Your task to perform on an android device: Open wifi settings Image 0: 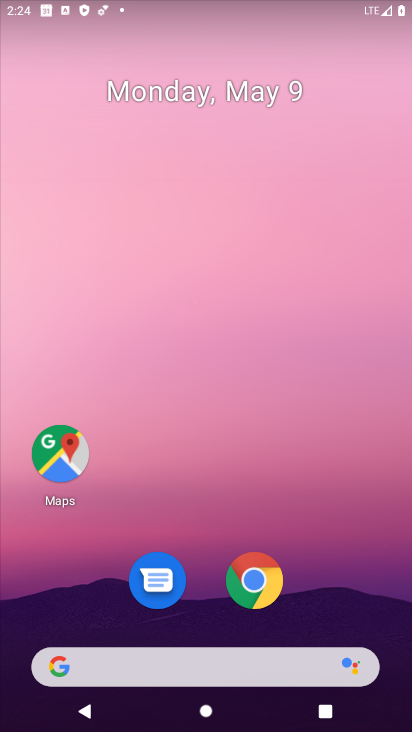
Step 0: drag from (313, 566) to (265, 122)
Your task to perform on an android device: Open wifi settings Image 1: 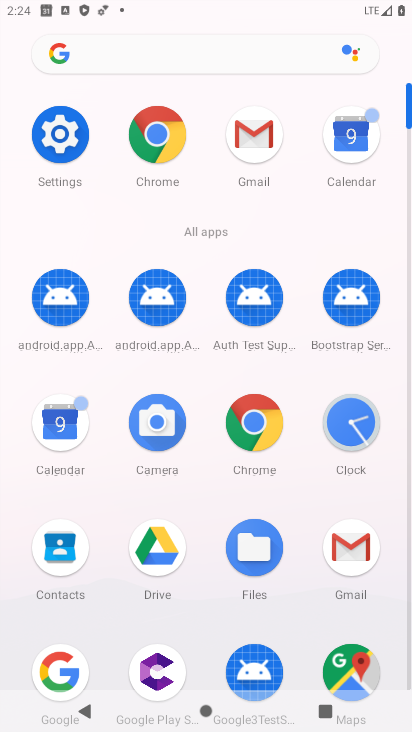
Step 1: click (65, 143)
Your task to perform on an android device: Open wifi settings Image 2: 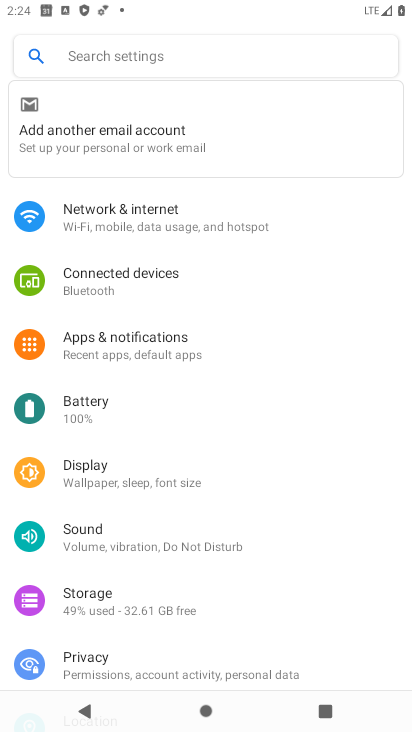
Step 2: click (126, 208)
Your task to perform on an android device: Open wifi settings Image 3: 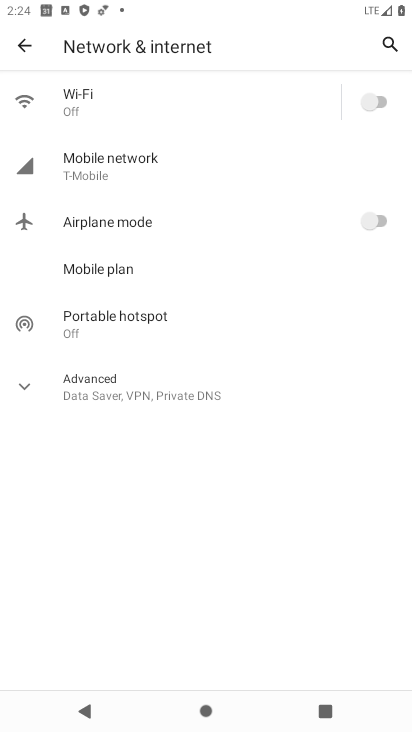
Step 3: click (142, 90)
Your task to perform on an android device: Open wifi settings Image 4: 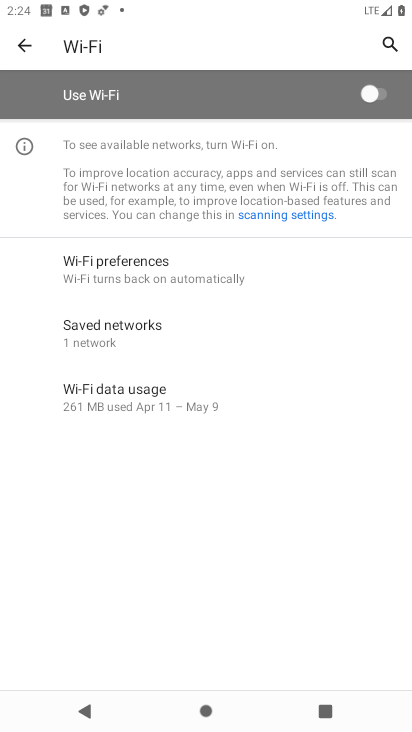
Step 4: task complete